Your task to perform on an android device: Open the web browser Image 0: 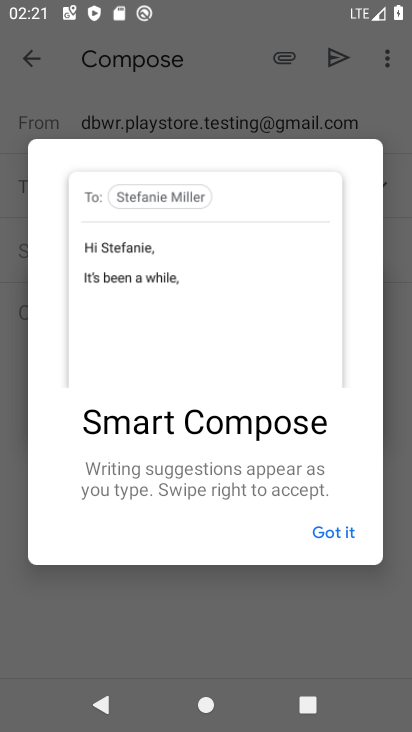
Step 0: drag from (209, 593) to (308, 155)
Your task to perform on an android device: Open the web browser Image 1: 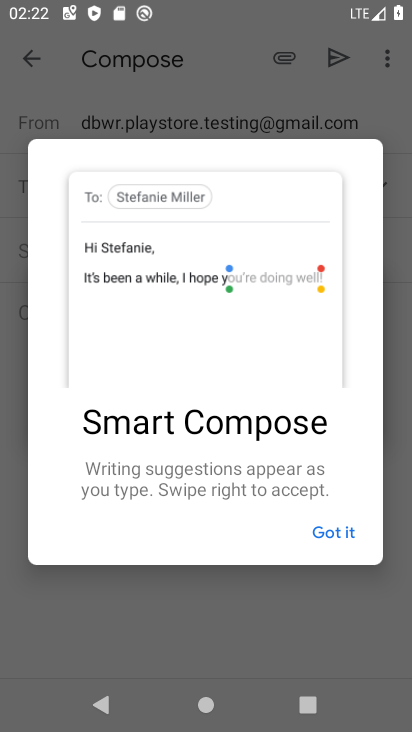
Step 1: press home button
Your task to perform on an android device: Open the web browser Image 2: 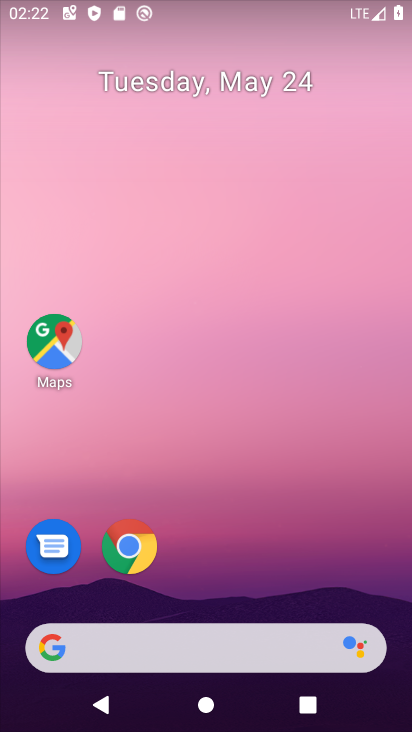
Step 2: drag from (193, 591) to (300, 143)
Your task to perform on an android device: Open the web browser Image 3: 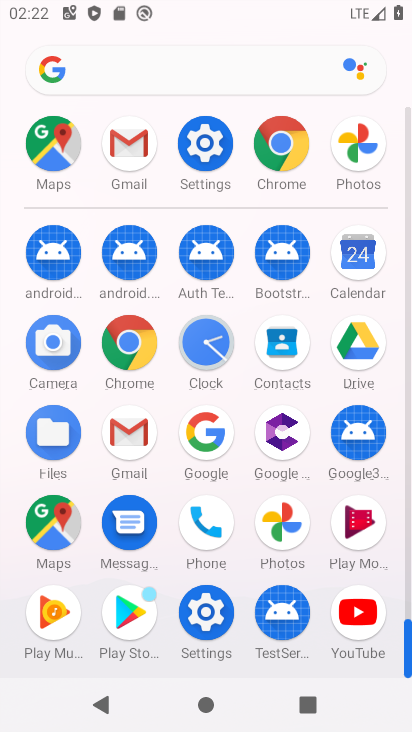
Step 3: click (280, 138)
Your task to perform on an android device: Open the web browser Image 4: 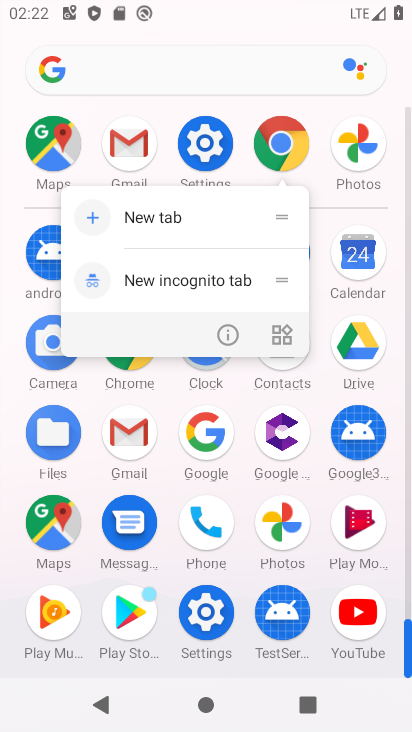
Step 4: click (219, 329)
Your task to perform on an android device: Open the web browser Image 5: 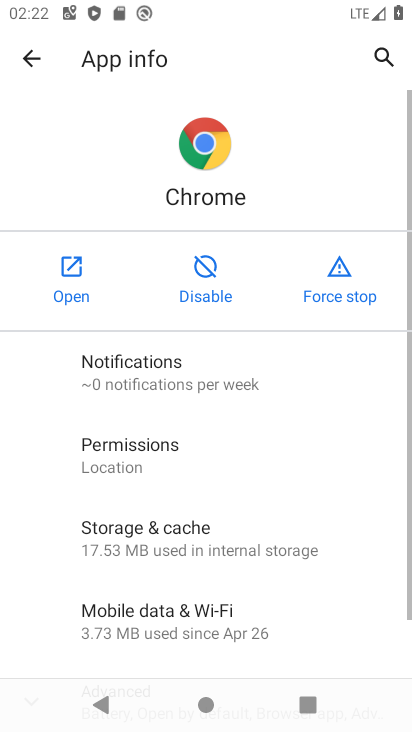
Step 5: click (71, 268)
Your task to perform on an android device: Open the web browser Image 6: 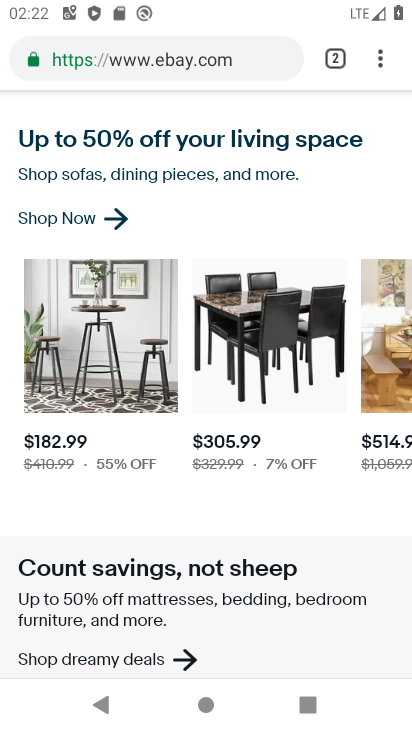
Step 6: task complete